Your task to perform on an android device: What's on the menu at Cheesecake Factory? Image 0: 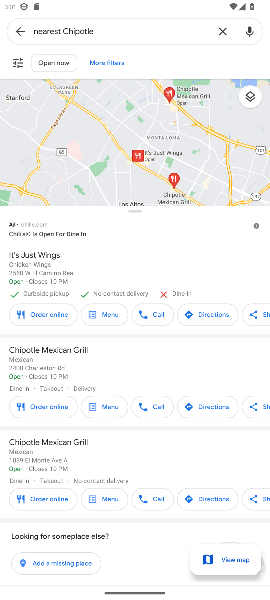
Step 0: press home button
Your task to perform on an android device: What's on the menu at Cheesecake Factory? Image 1: 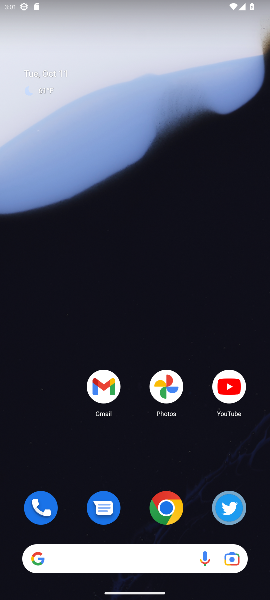
Step 1: click (166, 506)
Your task to perform on an android device: What's on the menu at Cheesecake Factory? Image 2: 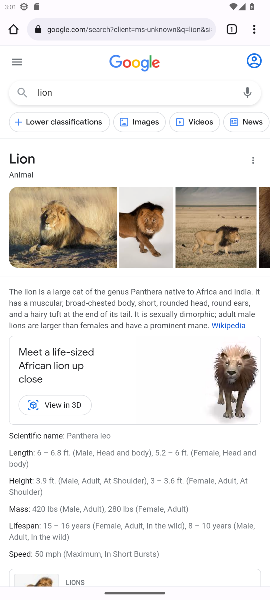
Step 2: click (134, 26)
Your task to perform on an android device: What's on the menu at Cheesecake Factory? Image 3: 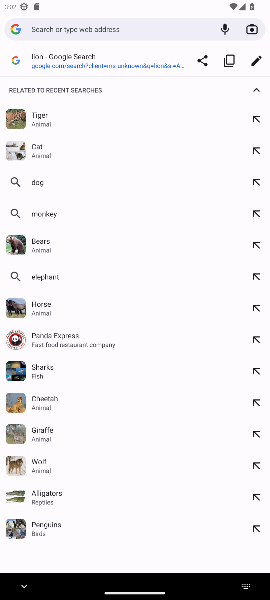
Step 3: type "menu at Cheesecake Factory"
Your task to perform on an android device: What's on the menu at Cheesecake Factory? Image 4: 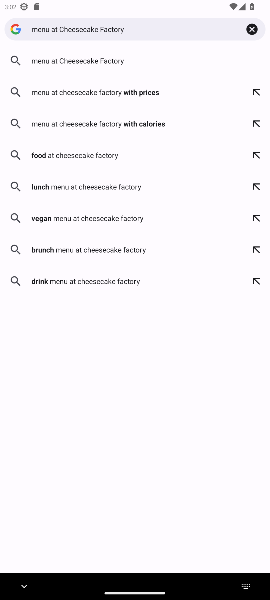
Step 4: press enter
Your task to perform on an android device: What's on the menu at Cheesecake Factory? Image 5: 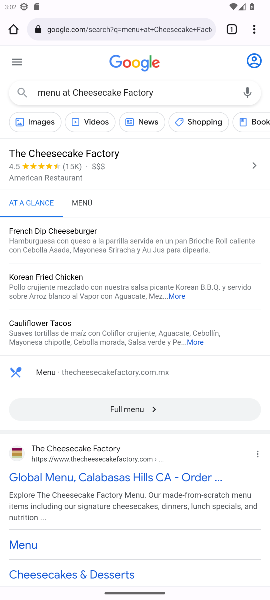
Step 5: click (86, 197)
Your task to perform on an android device: What's on the menu at Cheesecake Factory? Image 6: 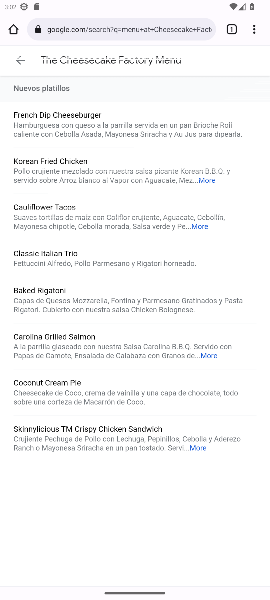
Step 6: task complete